Your task to perform on an android device: toggle notification dots Image 0: 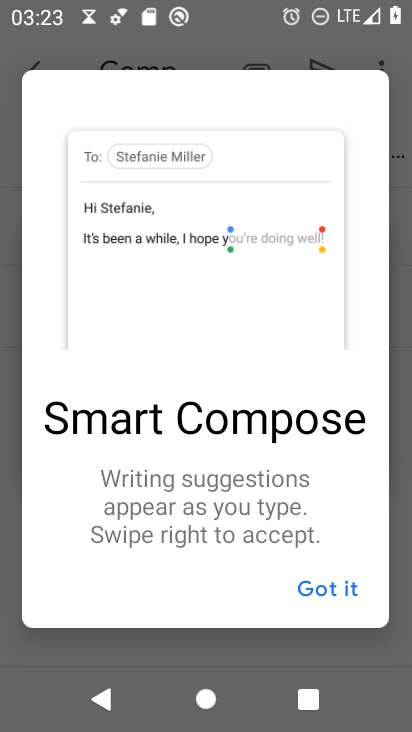
Step 0: press home button
Your task to perform on an android device: toggle notification dots Image 1: 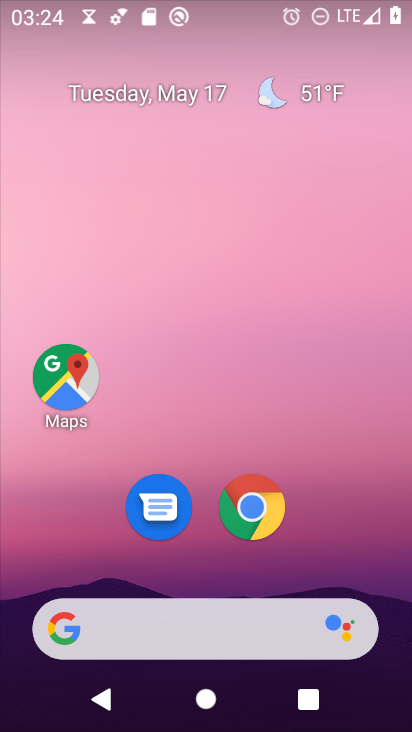
Step 1: drag from (182, 571) to (221, 32)
Your task to perform on an android device: toggle notification dots Image 2: 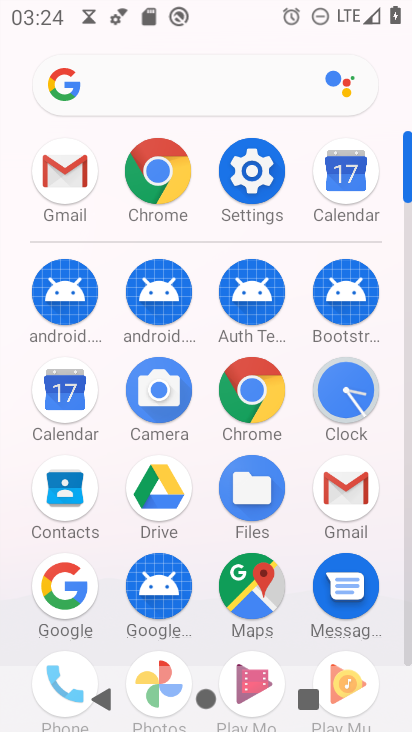
Step 2: click (255, 173)
Your task to perform on an android device: toggle notification dots Image 3: 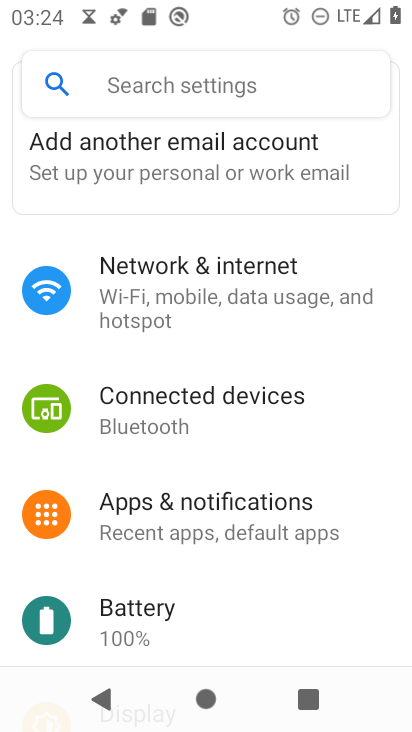
Step 3: click (209, 521)
Your task to perform on an android device: toggle notification dots Image 4: 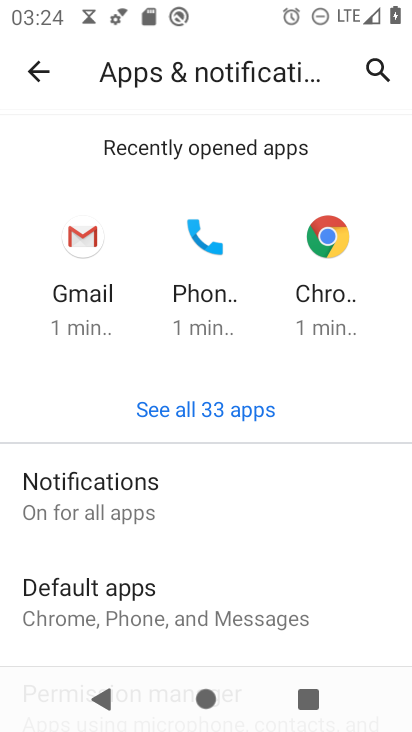
Step 4: click (175, 503)
Your task to perform on an android device: toggle notification dots Image 5: 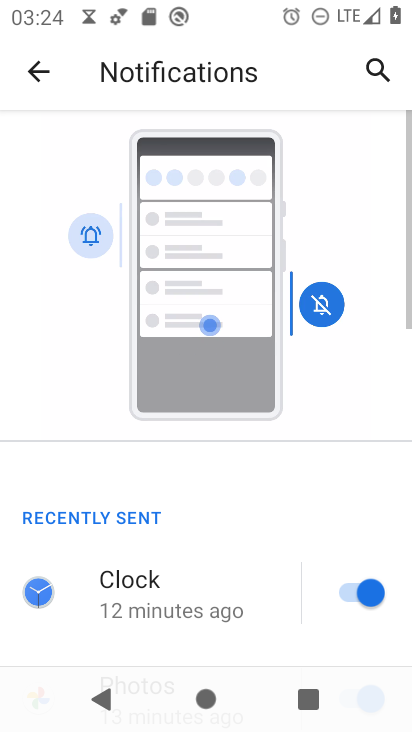
Step 5: drag from (211, 600) to (215, 299)
Your task to perform on an android device: toggle notification dots Image 6: 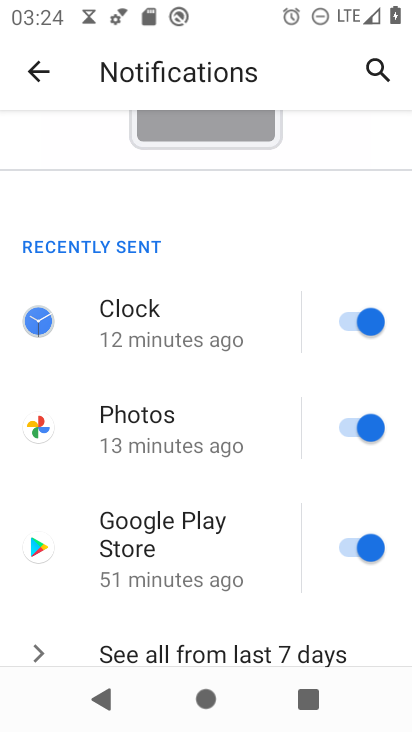
Step 6: drag from (197, 615) to (203, 301)
Your task to perform on an android device: toggle notification dots Image 7: 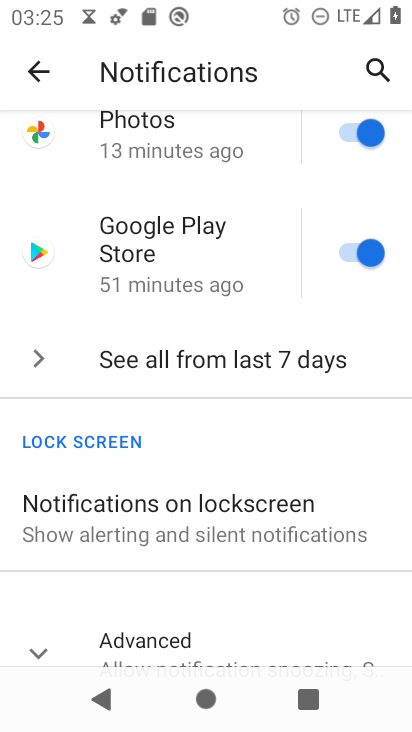
Step 7: drag from (218, 576) to (223, 137)
Your task to perform on an android device: toggle notification dots Image 8: 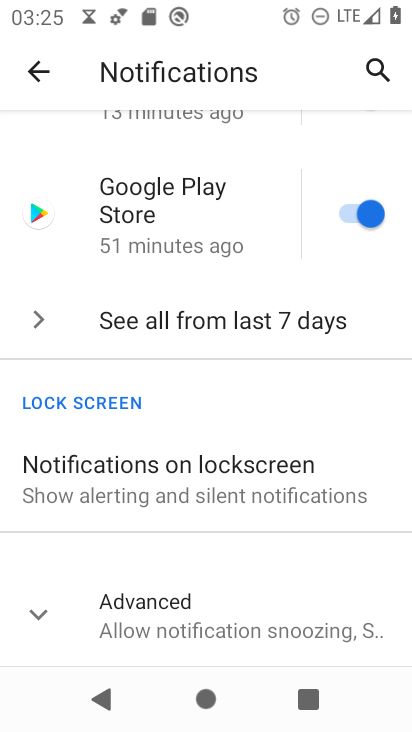
Step 8: click (208, 616)
Your task to perform on an android device: toggle notification dots Image 9: 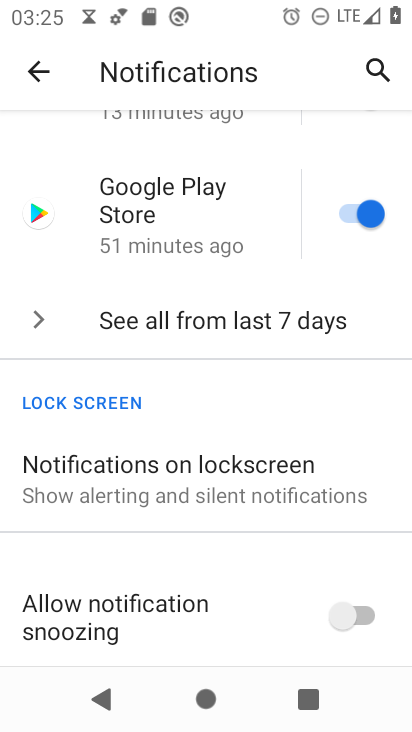
Step 9: drag from (195, 622) to (210, 392)
Your task to perform on an android device: toggle notification dots Image 10: 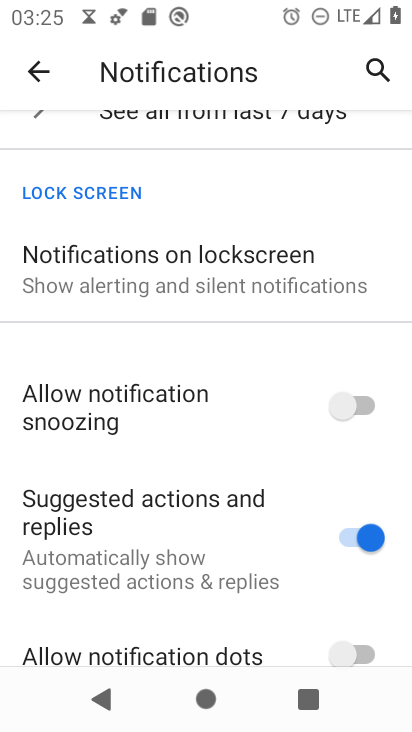
Step 10: drag from (234, 590) to (235, 268)
Your task to perform on an android device: toggle notification dots Image 11: 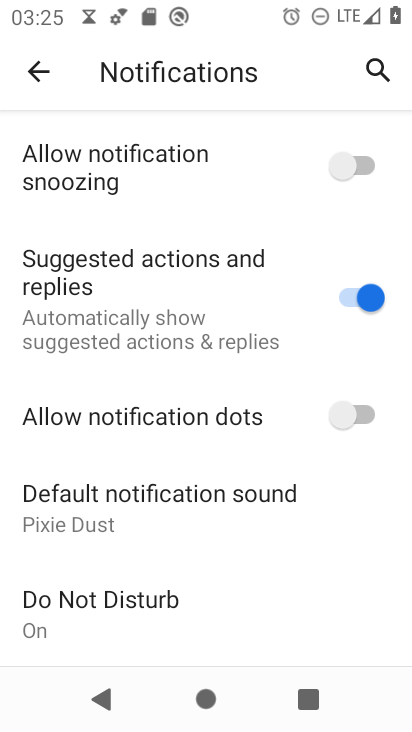
Step 11: click (370, 407)
Your task to perform on an android device: toggle notification dots Image 12: 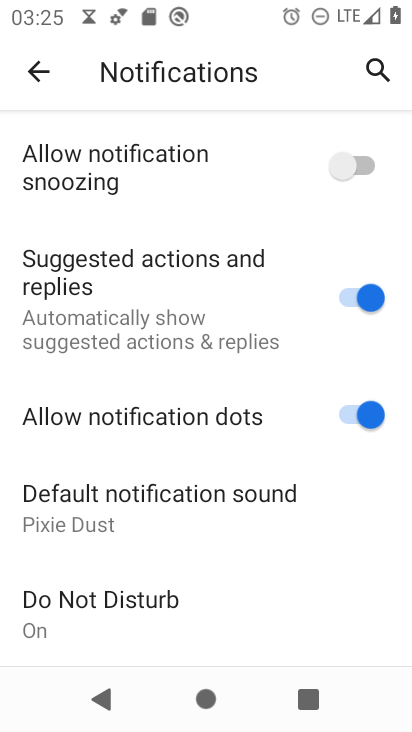
Step 12: task complete